Your task to perform on an android device: change timer sound Image 0: 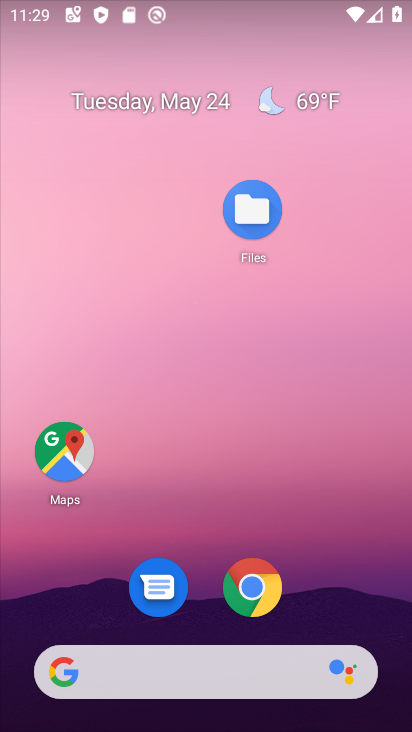
Step 0: drag from (331, 580) to (131, 122)
Your task to perform on an android device: change timer sound Image 1: 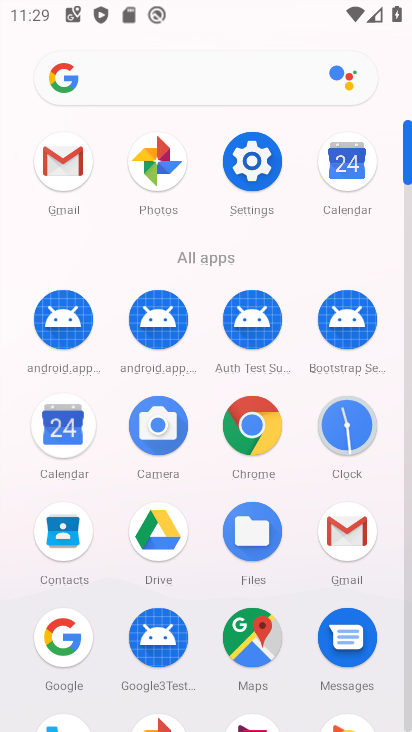
Step 1: click (350, 440)
Your task to perform on an android device: change timer sound Image 2: 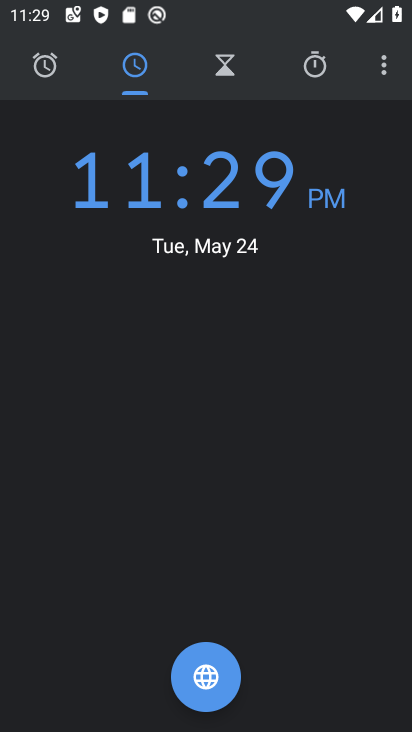
Step 2: click (386, 71)
Your task to perform on an android device: change timer sound Image 3: 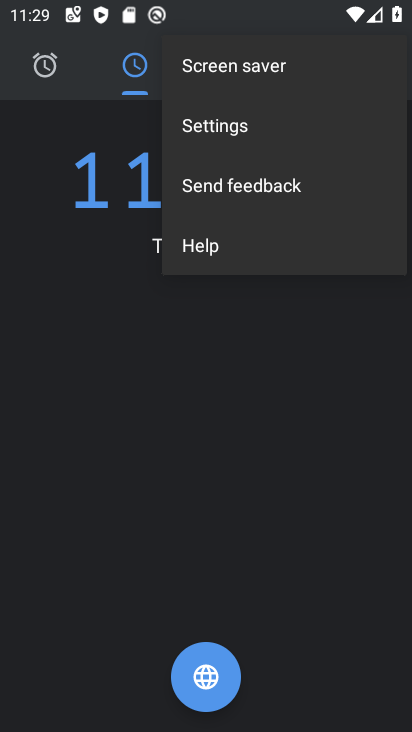
Step 3: click (262, 125)
Your task to perform on an android device: change timer sound Image 4: 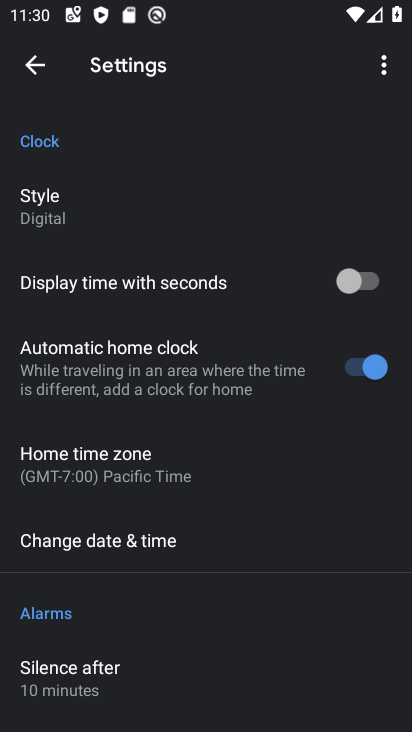
Step 4: drag from (176, 667) to (132, 147)
Your task to perform on an android device: change timer sound Image 5: 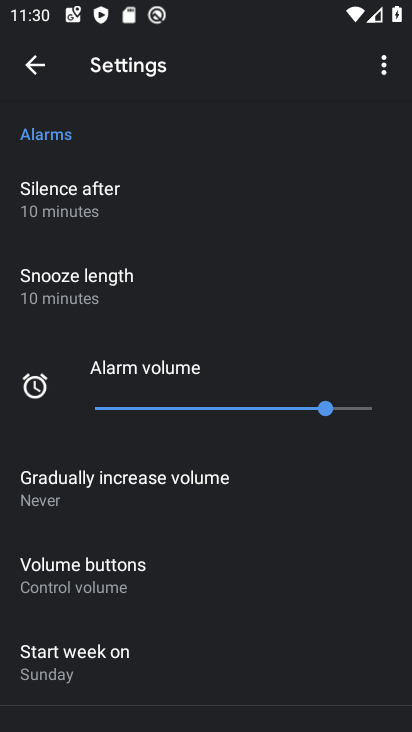
Step 5: drag from (215, 635) to (256, 217)
Your task to perform on an android device: change timer sound Image 6: 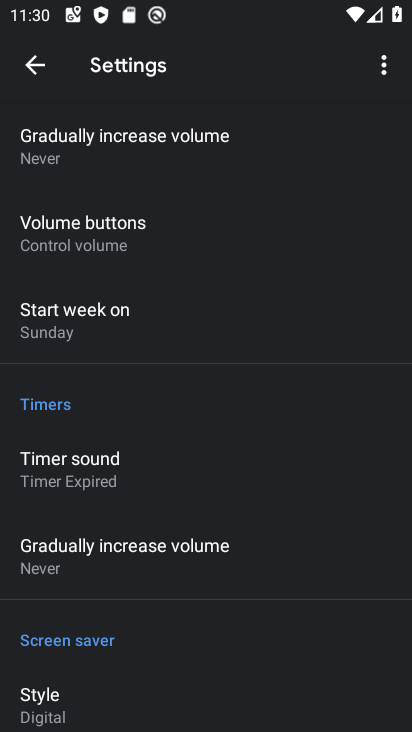
Step 6: click (111, 480)
Your task to perform on an android device: change timer sound Image 7: 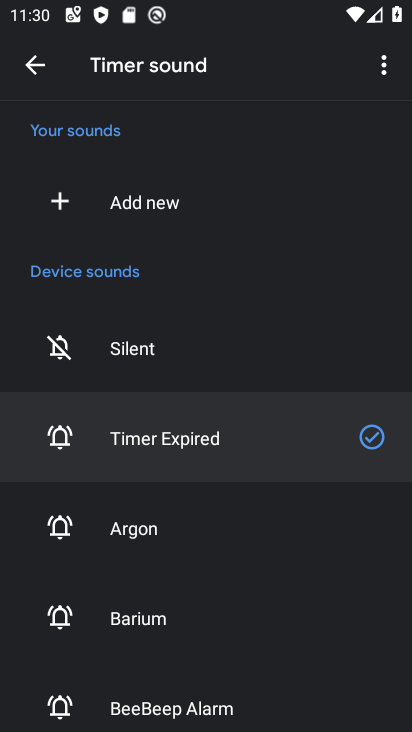
Step 7: click (129, 707)
Your task to perform on an android device: change timer sound Image 8: 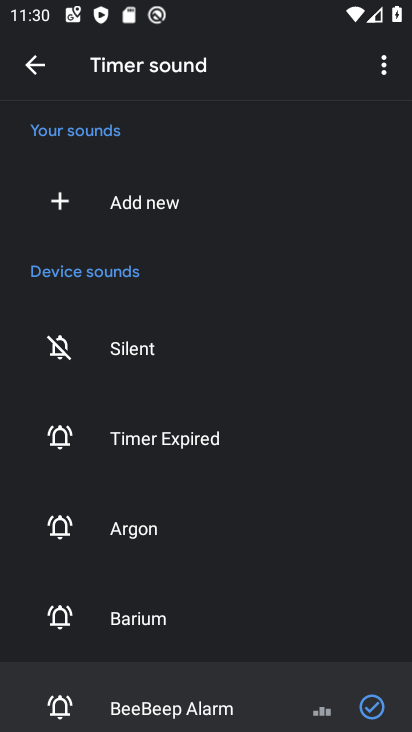
Step 8: task complete